Your task to perform on an android device: Go to ESPN.com Image 0: 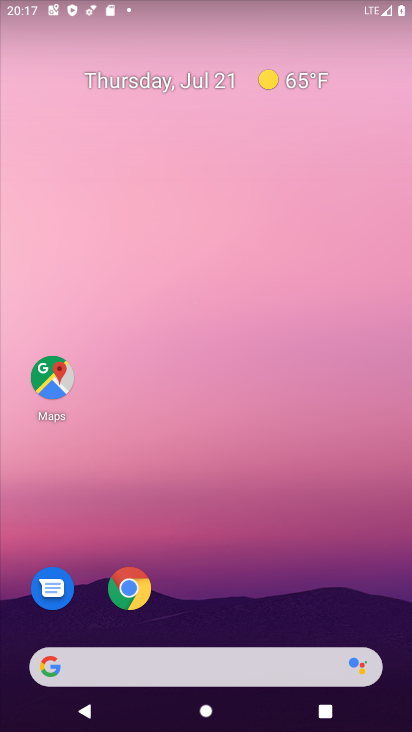
Step 0: drag from (193, 631) to (52, 1)
Your task to perform on an android device: Go to ESPN.com Image 1: 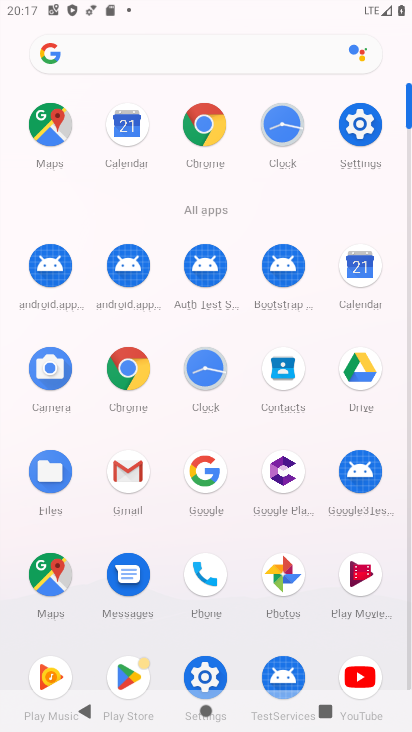
Step 1: click (197, 138)
Your task to perform on an android device: Go to ESPN.com Image 2: 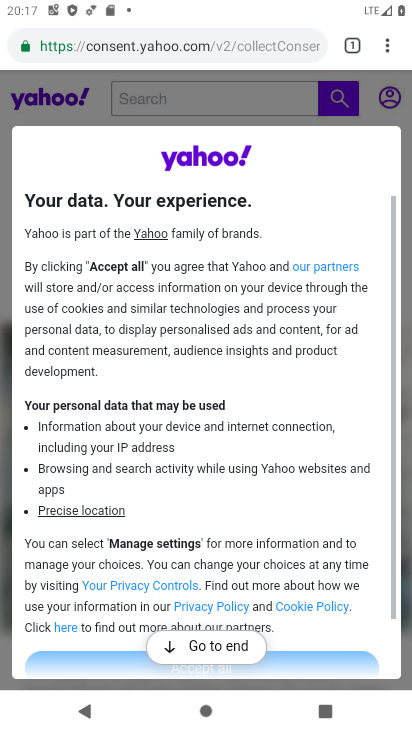
Step 2: click (348, 39)
Your task to perform on an android device: Go to ESPN.com Image 3: 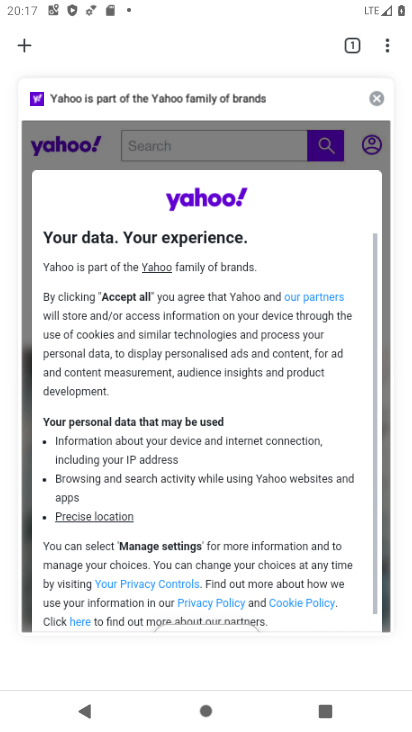
Step 3: click (16, 43)
Your task to perform on an android device: Go to ESPN.com Image 4: 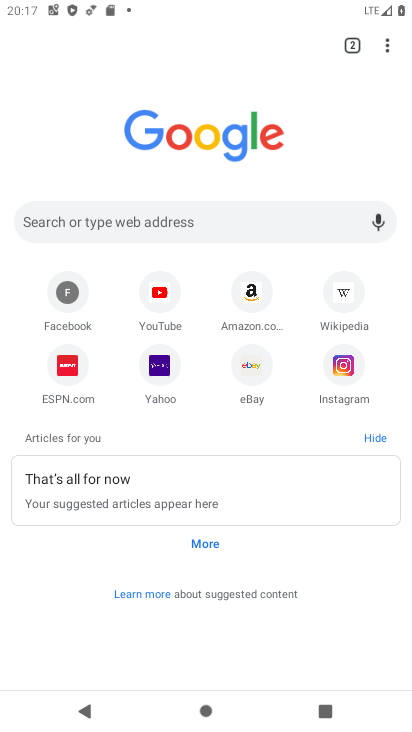
Step 4: click (57, 380)
Your task to perform on an android device: Go to ESPN.com Image 5: 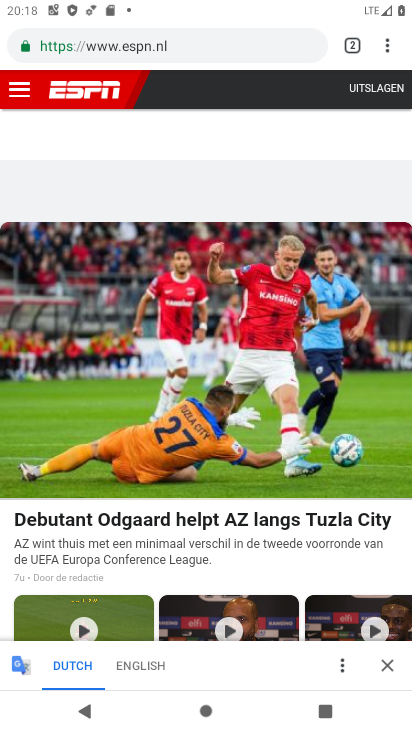
Step 5: task complete